Your task to perform on an android device: turn pop-ups off in chrome Image 0: 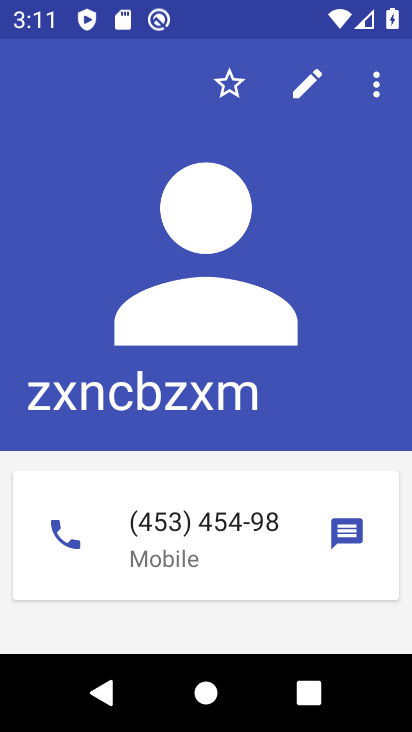
Step 0: press home button
Your task to perform on an android device: turn pop-ups off in chrome Image 1: 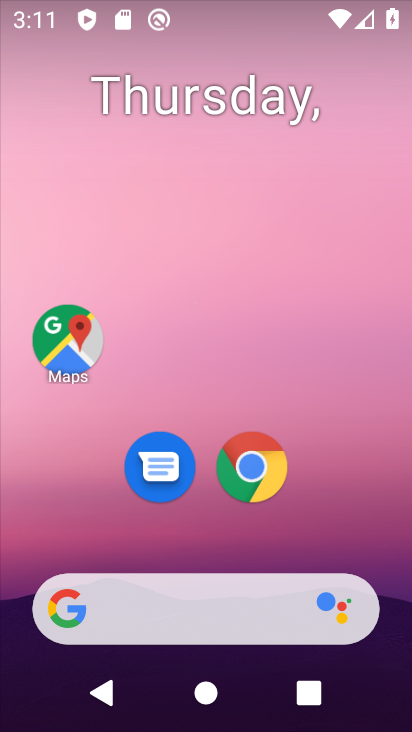
Step 1: click (255, 449)
Your task to perform on an android device: turn pop-ups off in chrome Image 2: 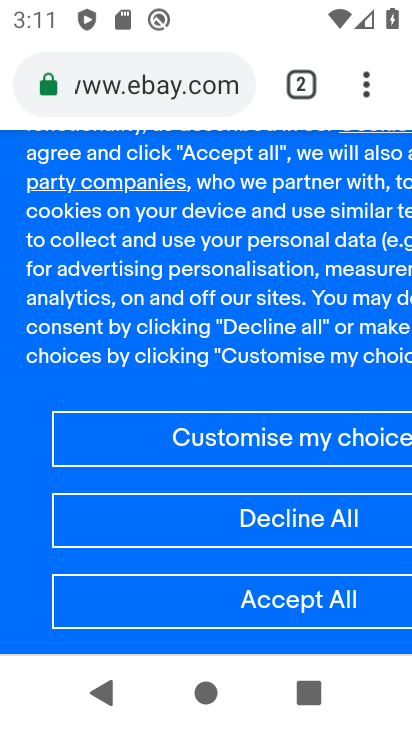
Step 2: click (358, 84)
Your task to perform on an android device: turn pop-ups off in chrome Image 3: 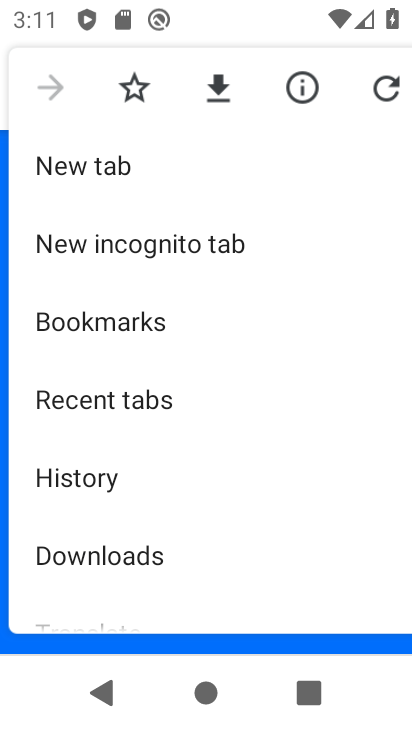
Step 3: drag from (127, 502) to (188, 145)
Your task to perform on an android device: turn pop-ups off in chrome Image 4: 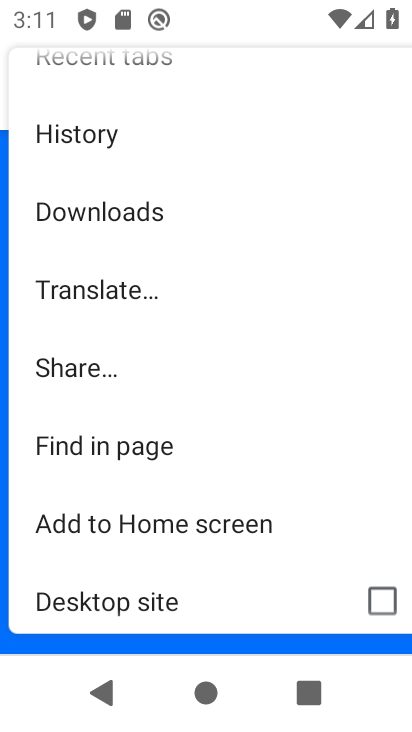
Step 4: drag from (116, 517) to (174, 161)
Your task to perform on an android device: turn pop-ups off in chrome Image 5: 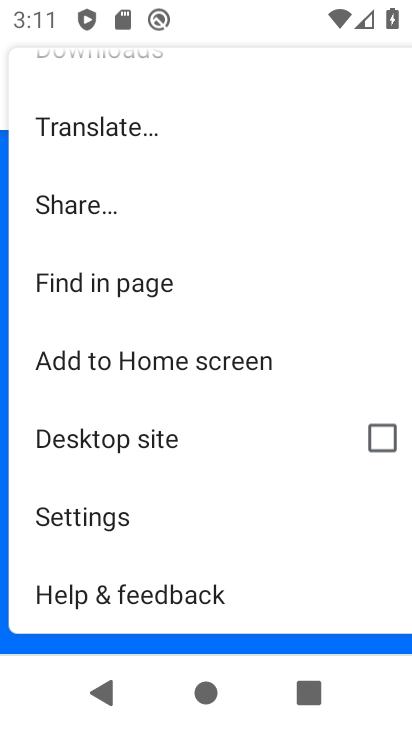
Step 5: click (107, 516)
Your task to perform on an android device: turn pop-ups off in chrome Image 6: 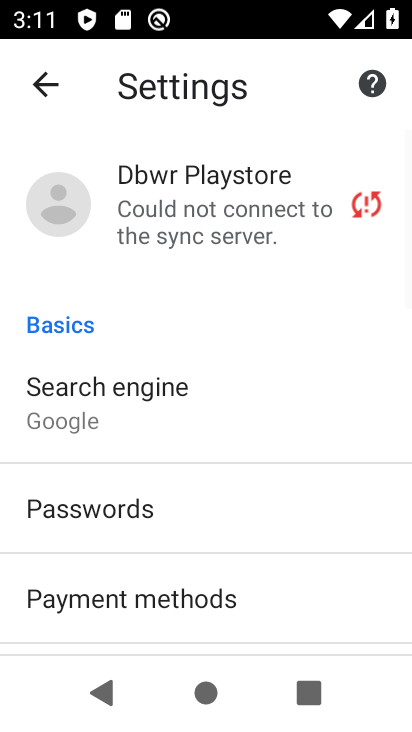
Step 6: drag from (156, 543) to (172, 161)
Your task to perform on an android device: turn pop-ups off in chrome Image 7: 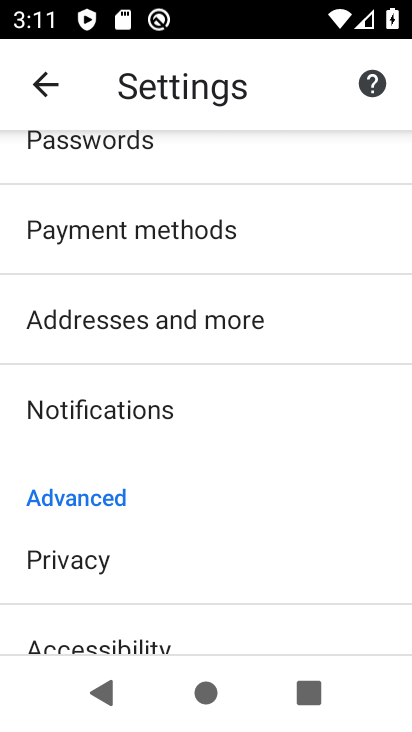
Step 7: drag from (166, 582) to (158, 181)
Your task to perform on an android device: turn pop-ups off in chrome Image 8: 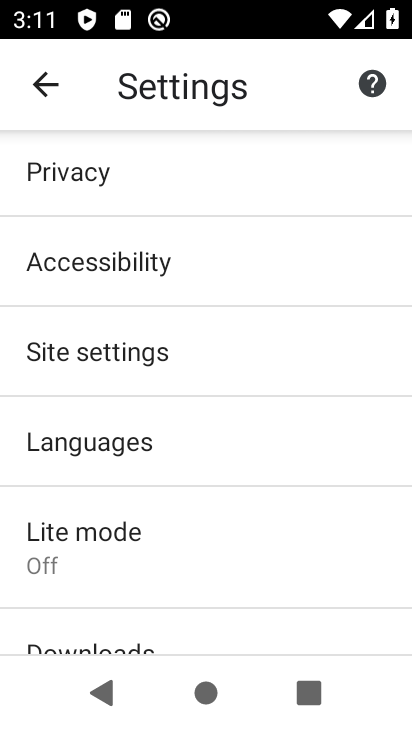
Step 8: click (113, 366)
Your task to perform on an android device: turn pop-ups off in chrome Image 9: 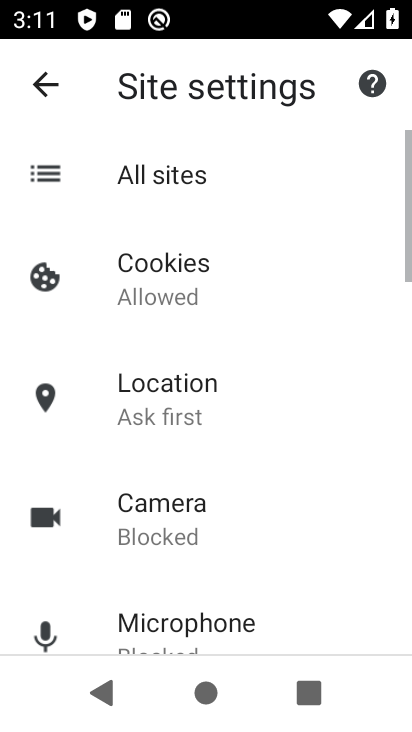
Step 9: drag from (185, 556) to (188, 188)
Your task to perform on an android device: turn pop-ups off in chrome Image 10: 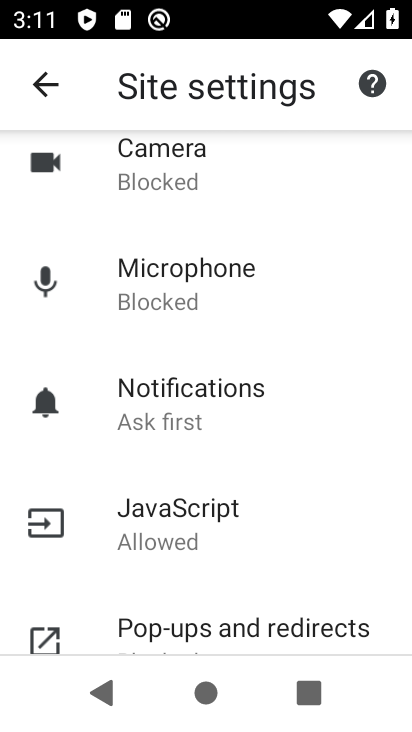
Step 10: click (172, 626)
Your task to perform on an android device: turn pop-ups off in chrome Image 11: 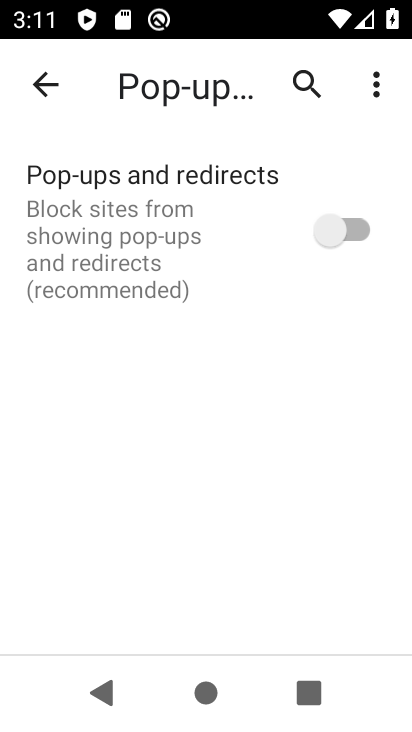
Step 11: task complete